Your task to perform on an android device: manage bookmarks in the chrome app Image 0: 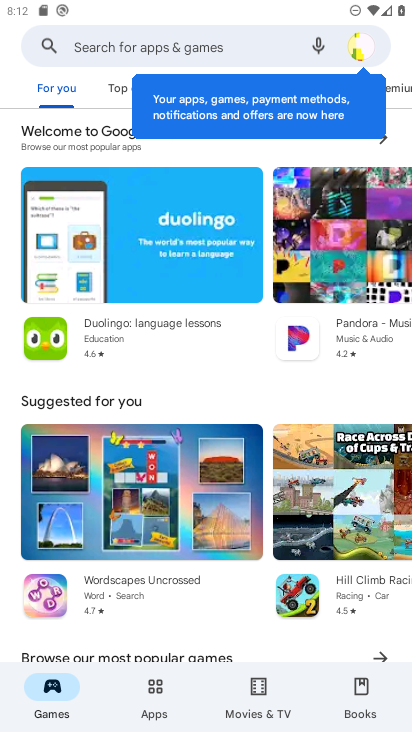
Step 0: press home button
Your task to perform on an android device: manage bookmarks in the chrome app Image 1: 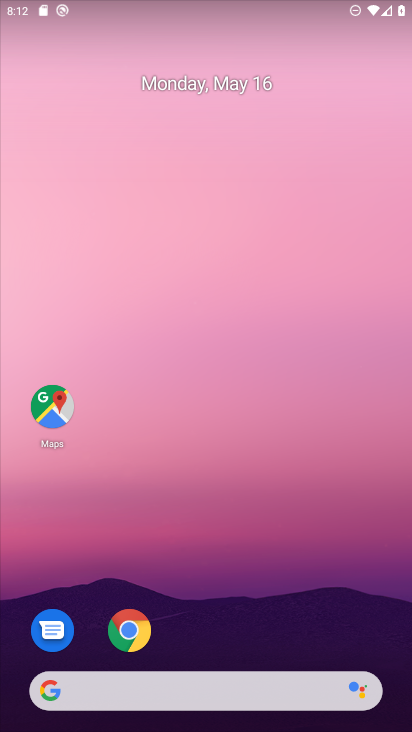
Step 1: click (138, 638)
Your task to perform on an android device: manage bookmarks in the chrome app Image 2: 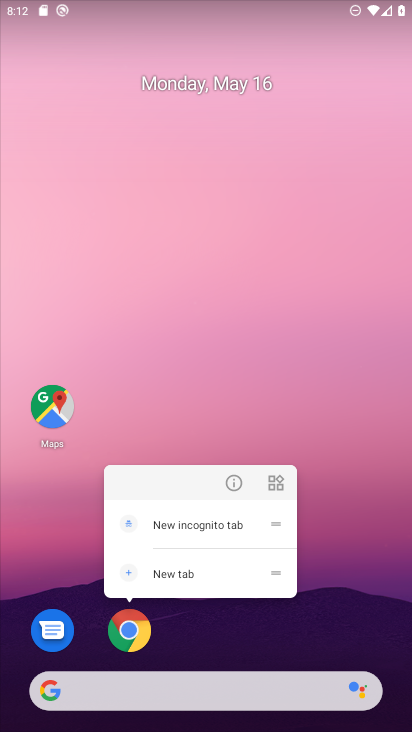
Step 2: click (138, 625)
Your task to perform on an android device: manage bookmarks in the chrome app Image 3: 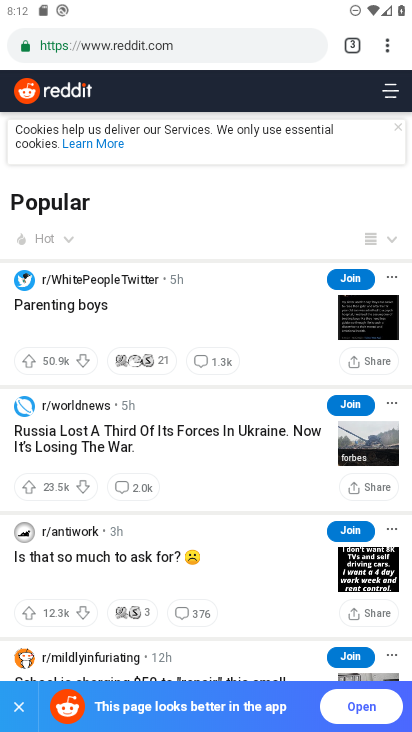
Step 3: click (372, 44)
Your task to perform on an android device: manage bookmarks in the chrome app Image 4: 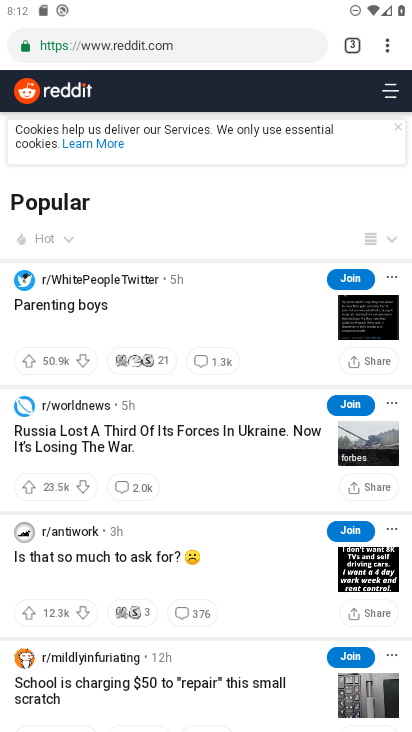
Step 4: click (387, 44)
Your task to perform on an android device: manage bookmarks in the chrome app Image 5: 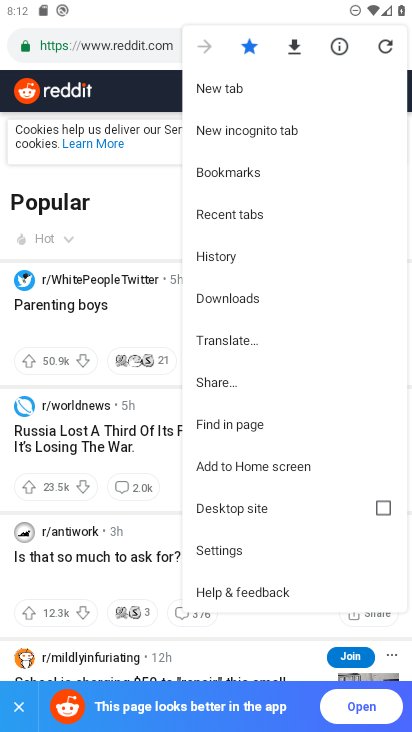
Step 5: click (261, 180)
Your task to perform on an android device: manage bookmarks in the chrome app Image 6: 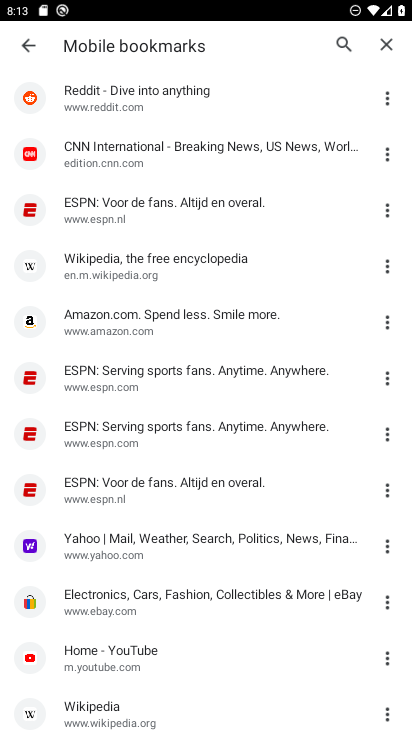
Step 6: click (393, 151)
Your task to perform on an android device: manage bookmarks in the chrome app Image 7: 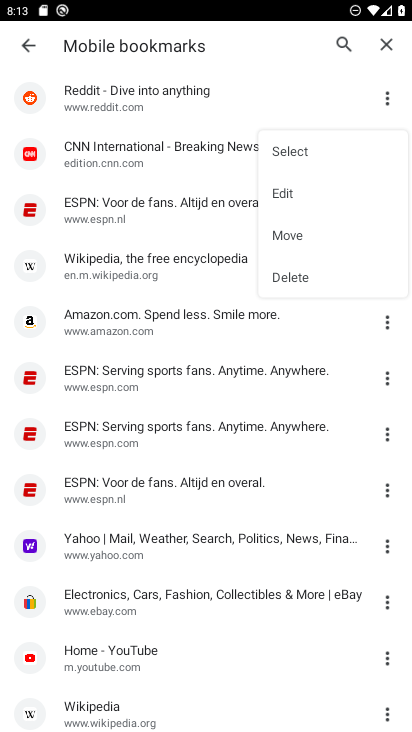
Step 7: click (294, 235)
Your task to perform on an android device: manage bookmarks in the chrome app Image 8: 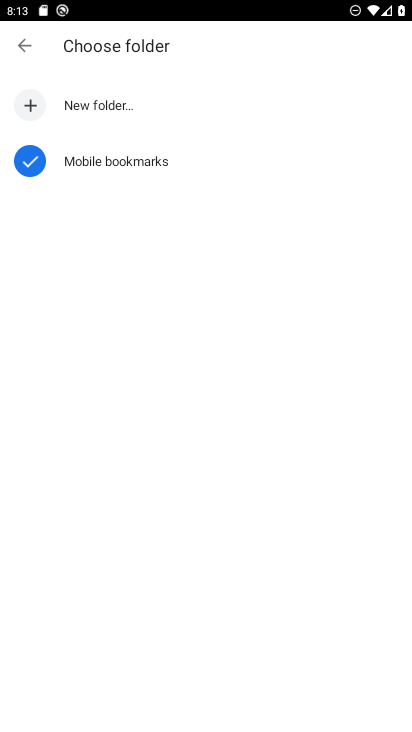
Step 8: click (118, 94)
Your task to perform on an android device: manage bookmarks in the chrome app Image 9: 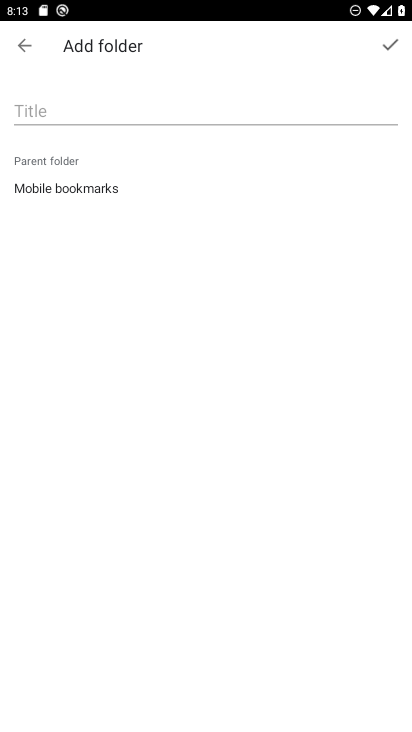
Step 9: click (118, 94)
Your task to perform on an android device: manage bookmarks in the chrome app Image 10: 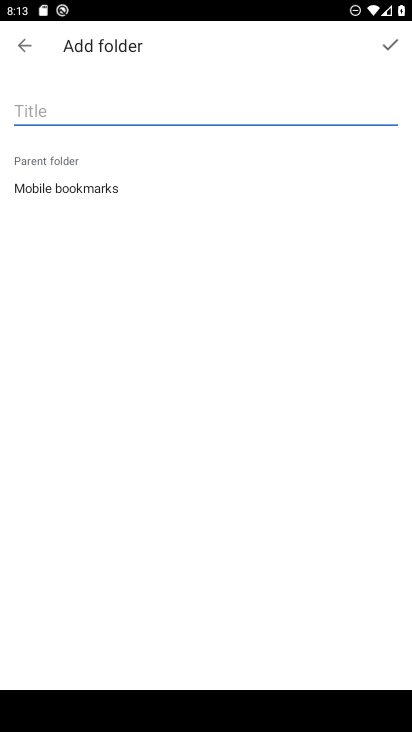
Step 10: type "gghyf"
Your task to perform on an android device: manage bookmarks in the chrome app Image 11: 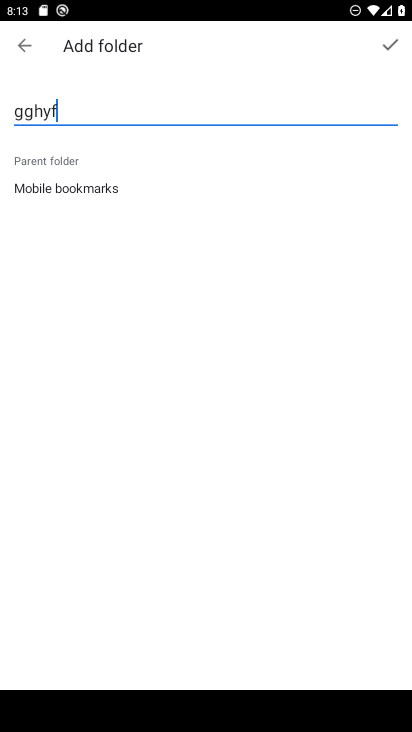
Step 11: click (387, 35)
Your task to perform on an android device: manage bookmarks in the chrome app Image 12: 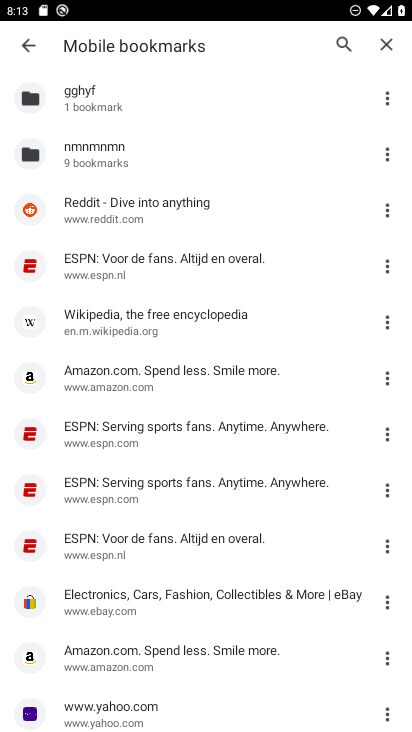
Step 12: task complete